Your task to perform on an android device: Go to settings Image 0: 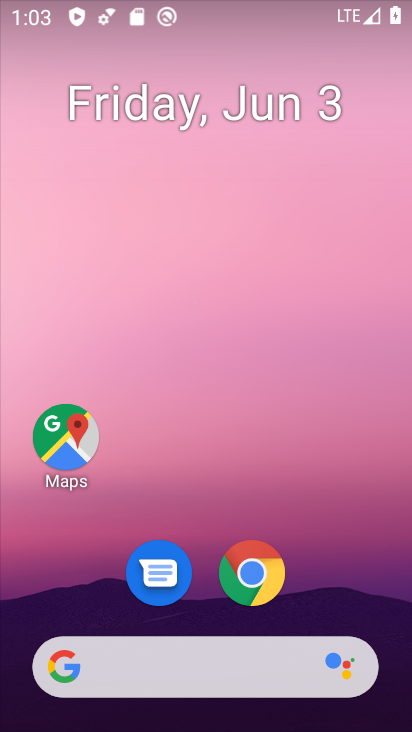
Step 0: drag from (342, 587) to (346, 203)
Your task to perform on an android device: Go to settings Image 1: 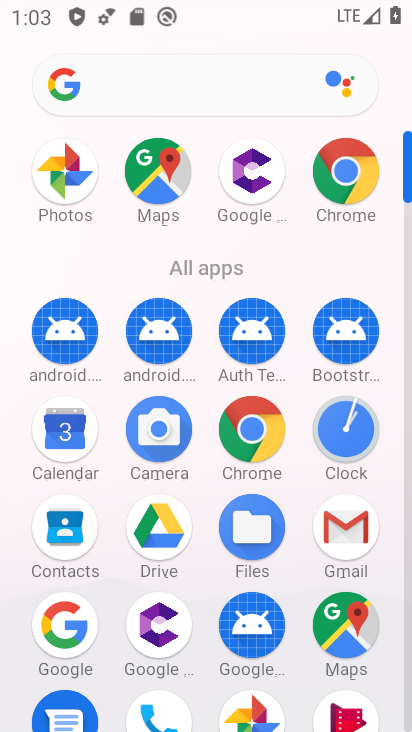
Step 1: drag from (386, 545) to (379, 267)
Your task to perform on an android device: Go to settings Image 2: 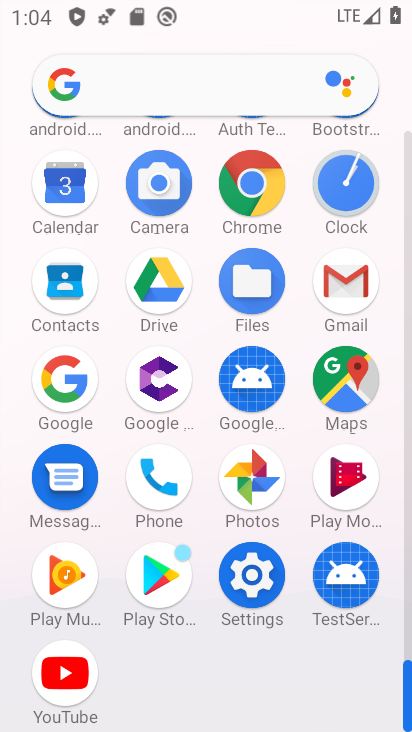
Step 2: click (244, 570)
Your task to perform on an android device: Go to settings Image 3: 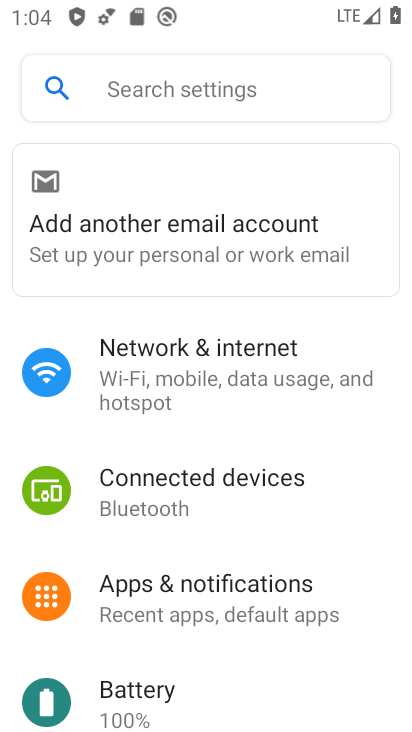
Step 3: task complete